Your task to perform on an android device: Clear the shopping cart on amazon.com. Image 0: 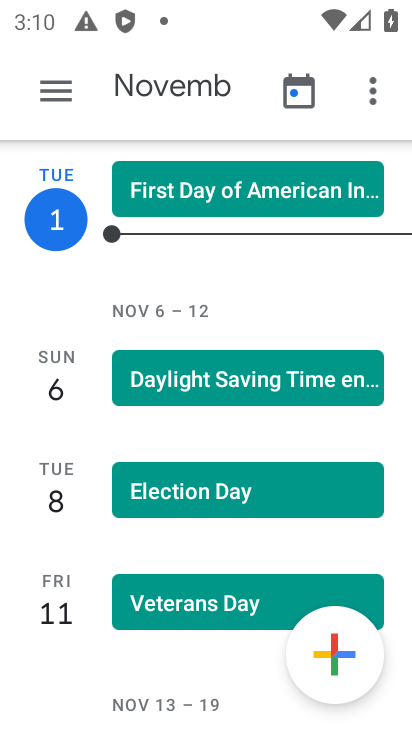
Step 0: press home button
Your task to perform on an android device: Clear the shopping cart on amazon.com. Image 1: 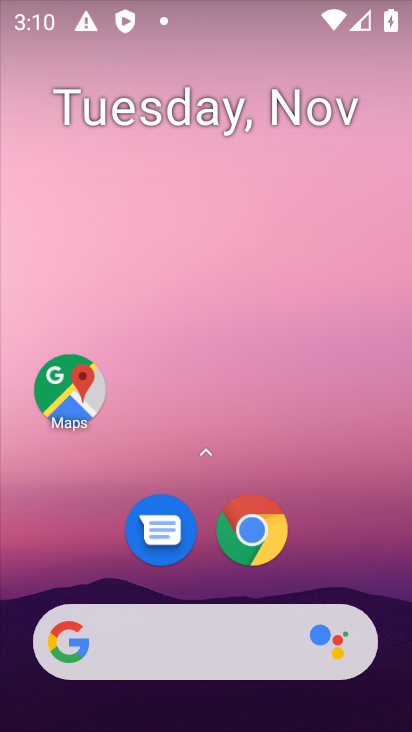
Step 1: drag from (228, 692) to (254, 65)
Your task to perform on an android device: Clear the shopping cart on amazon.com. Image 2: 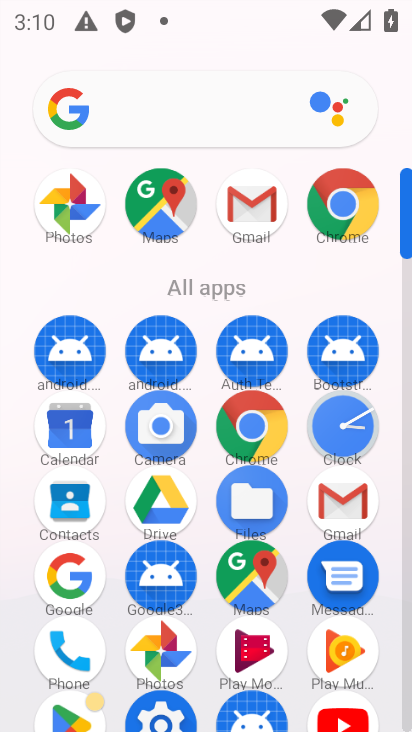
Step 2: click (265, 415)
Your task to perform on an android device: Clear the shopping cart on amazon.com. Image 3: 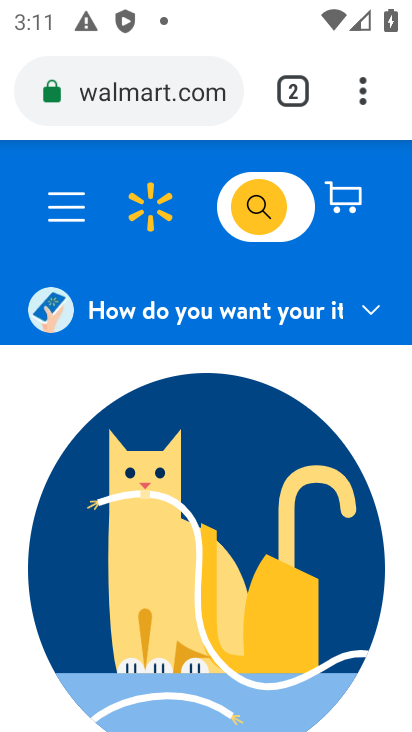
Step 3: press home button
Your task to perform on an android device: Clear the shopping cart on amazon.com. Image 4: 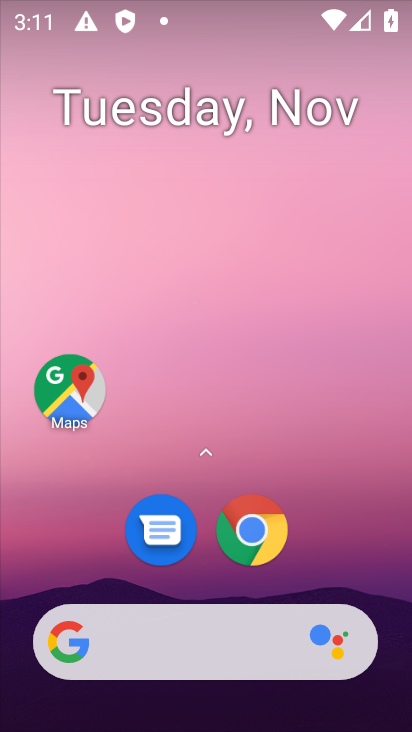
Step 4: drag from (258, 688) to (286, 174)
Your task to perform on an android device: Clear the shopping cart on amazon.com. Image 5: 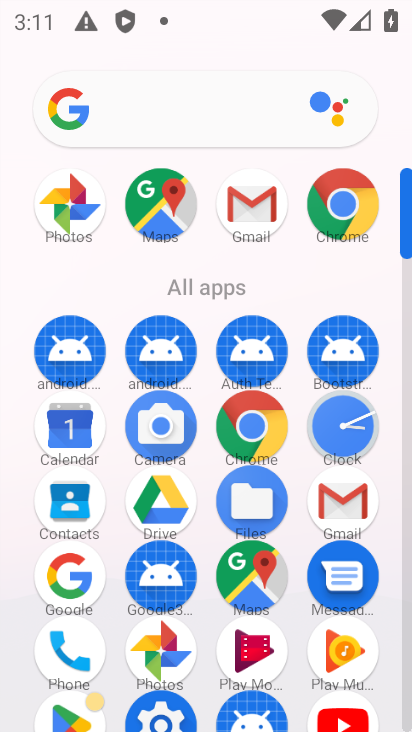
Step 5: click (249, 413)
Your task to perform on an android device: Clear the shopping cart on amazon.com. Image 6: 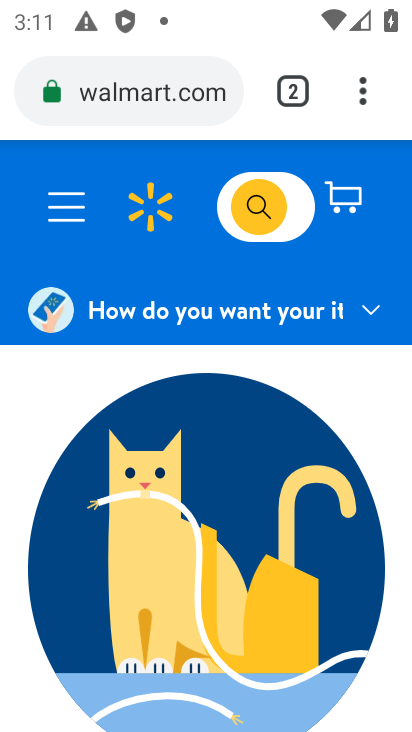
Step 6: click (177, 95)
Your task to perform on an android device: Clear the shopping cart on amazon.com. Image 7: 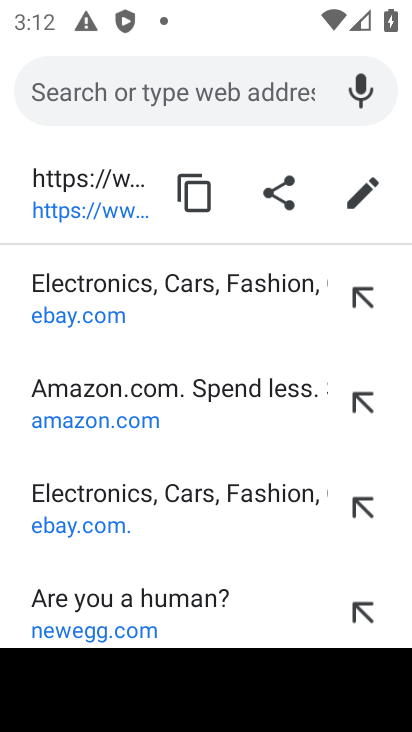
Step 7: type " amazon.com"
Your task to perform on an android device: Clear the shopping cart on amazon.com. Image 8: 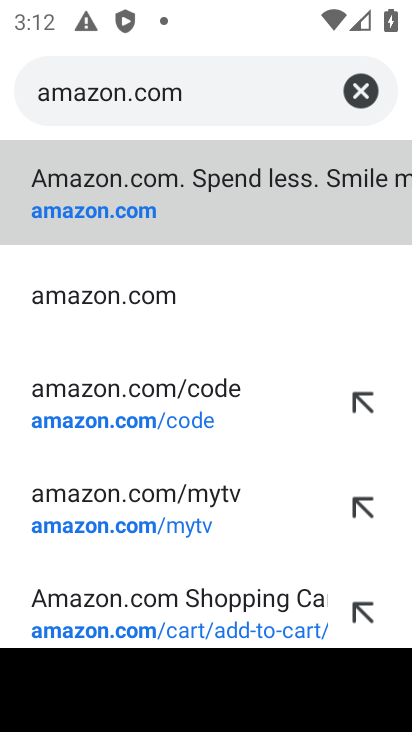
Step 8: click (100, 213)
Your task to perform on an android device: Clear the shopping cart on amazon.com. Image 9: 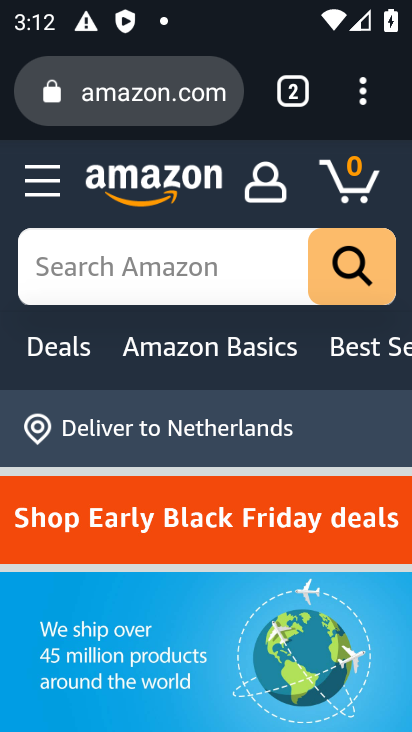
Step 9: click (357, 172)
Your task to perform on an android device: Clear the shopping cart on amazon.com. Image 10: 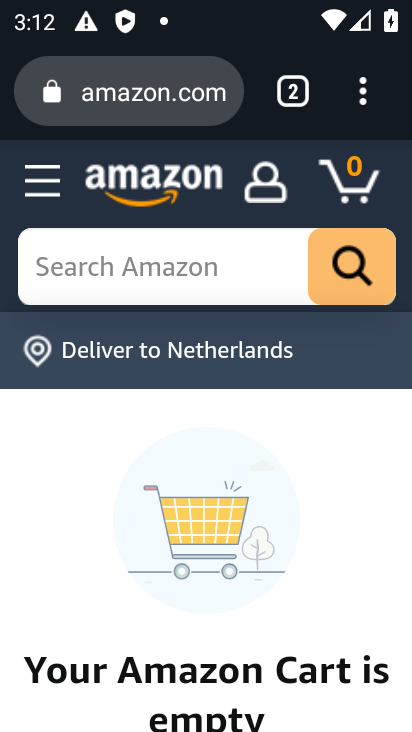
Step 10: task complete